Your task to perform on an android device: Search for "razer naga" on bestbuy, select the first entry, add it to the cart, then select checkout. Image 0: 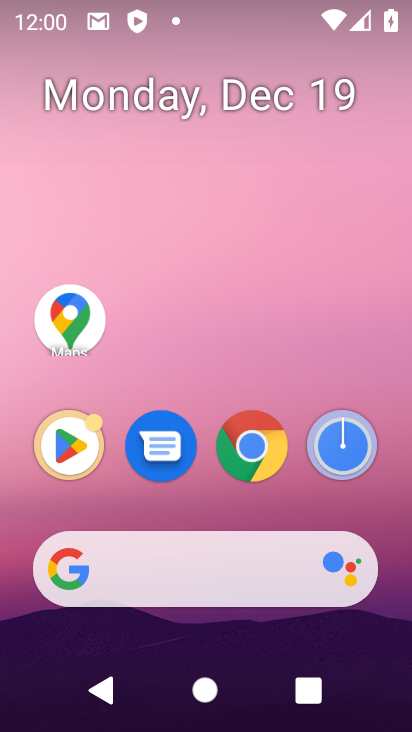
Step 0: click (244, 455)
Your task to perform on an android device: Search for "razer naga" on bestbuy, select the first entry, add it to the cart, then select checkout. Image 1: 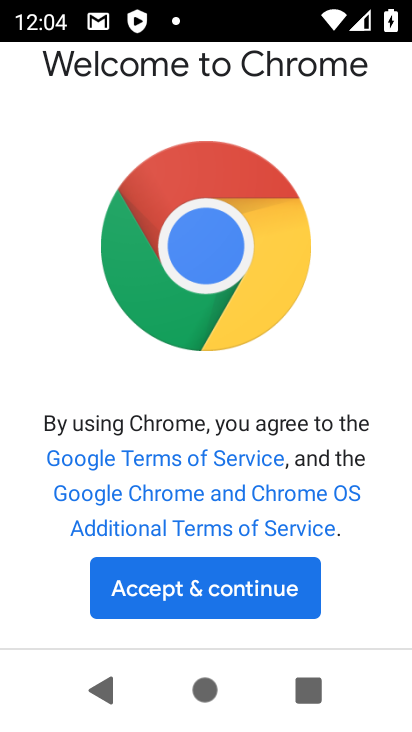
Step 1: click (233, 560)
Your task to perform on an android device: Search for "razer naga" on bestbuy, select the first entry, add it to the cart, then select checkout. Image 2: 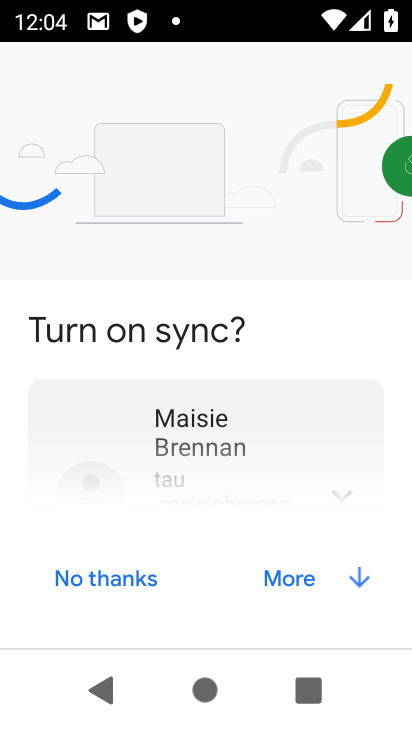
Step 2: click (77, 589)
Your task to perform on an android device: Search for "razer naga" on bestbuy, select the first entry, add it to the cart, then select checkout. Image 3: 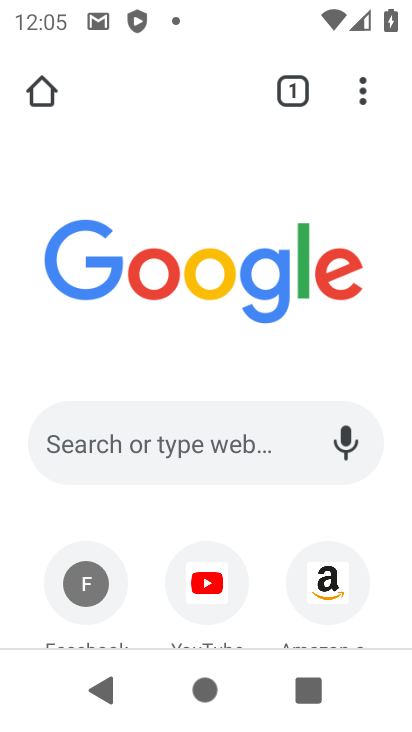
Step 3: press home button
Your task to perform on an android device: Search for "razer naga" on bestbuy, select the first entry, add it to the cart, then select checkout. Image 4: 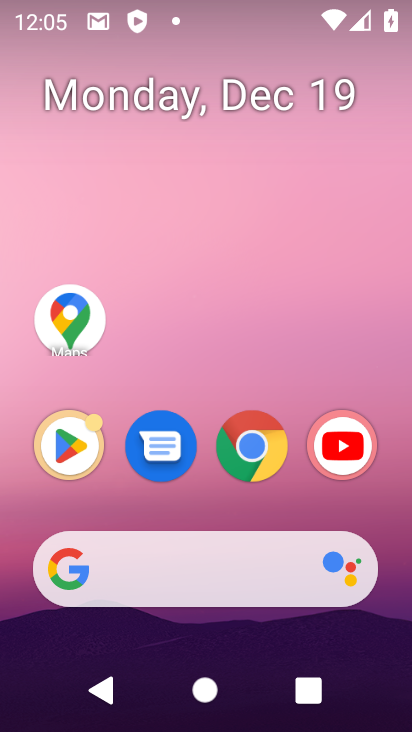
Step 4: click (264, 545)
Your task to perform on an android device: Search for "razer naga" on bestbuy, select the first entry, add it to the cart, then select checkout. Image 5: 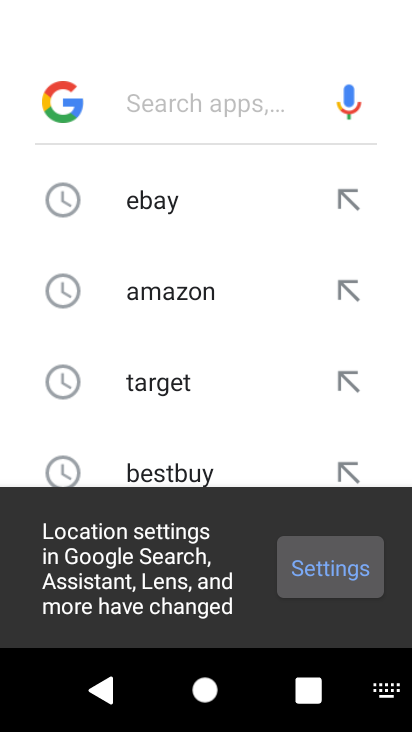
Step 5: type "bestbuy"
Your task to perform on an android device: Search for "razer naga" on bestbuy, select the first entry, add it to the cart, then select checkout. Image 6: 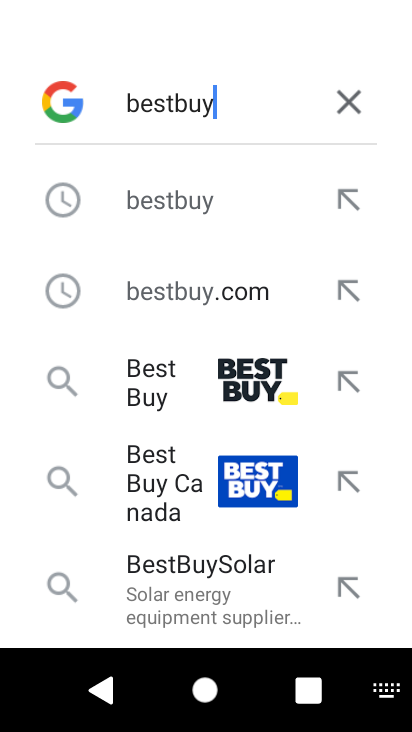
Step 6: click (144, 210)
Your task to perform on an android device: Search for "razer naga" on bestbuy, select the first entry, add it to the cart, then select checkout. Image 7: 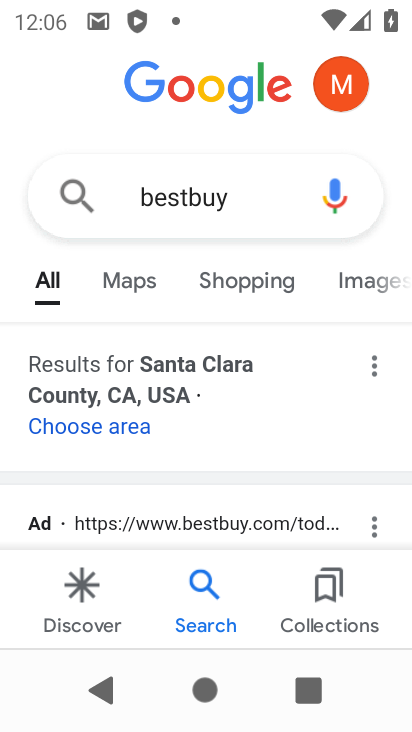
Step 7: click (159, 527)
Your task to perform on an android device: Search for "razer naga" on bestbuy, select the first entry, add it to the cart, then select checkout. Image 8: 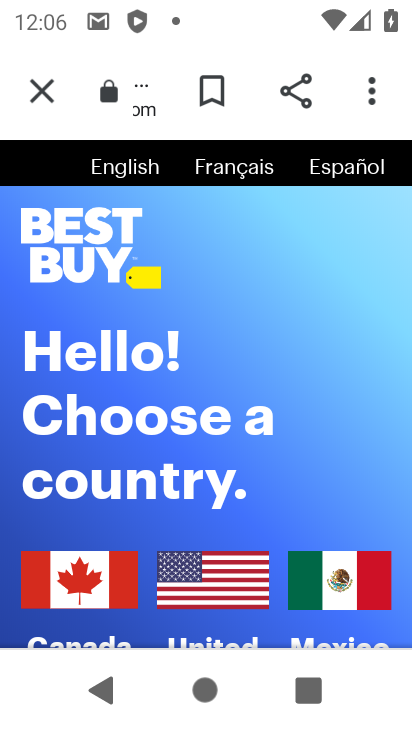
Step 8: click (77, 581)
Your task to perform on an android device: Search for "razer naga" on bestbuy, select the first entry, add it to the cart, then select checkout. Image 9: 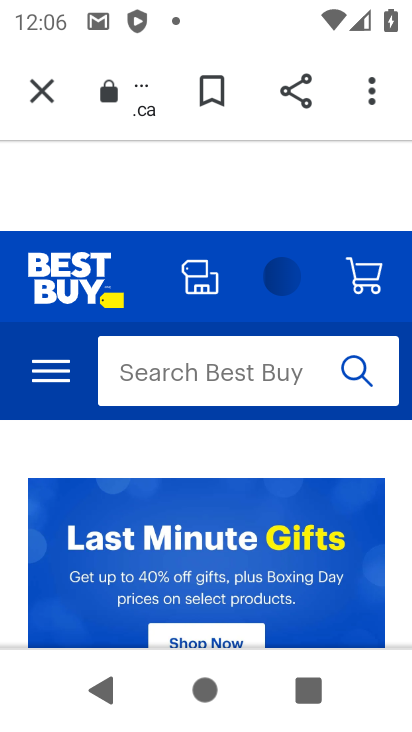
Step 9: click (227, 376)
Your task to perform on an android device: Search for "razer naga" on bestbuy, select the first entry, add it to the cart, then select checkout. Image 10: 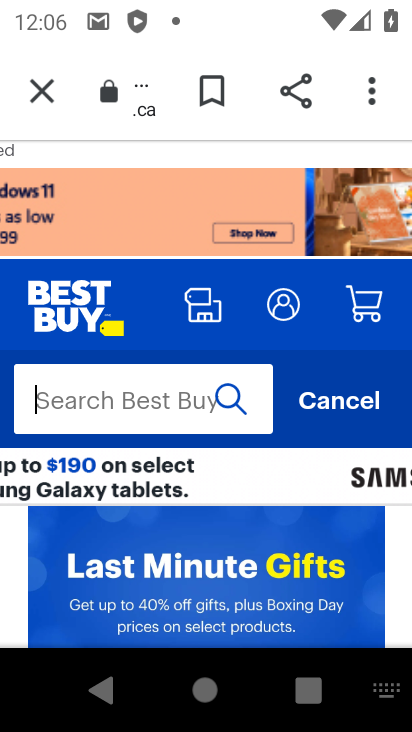
Step 10: type "razer naga"
Your task to perform on an android device: Search for "razer naga" on bestbuy, select the first entry, add it to the cart, then select checkout. Image 11: 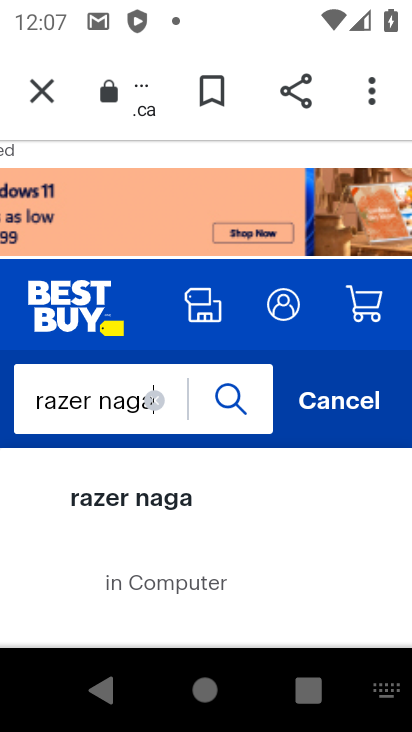
Step 11: click (189, 495)
Your task to perform on an android device: Search for "razer naga" on bestbuy, select the first entry, add it to the cart, then select checkout. Image 12: 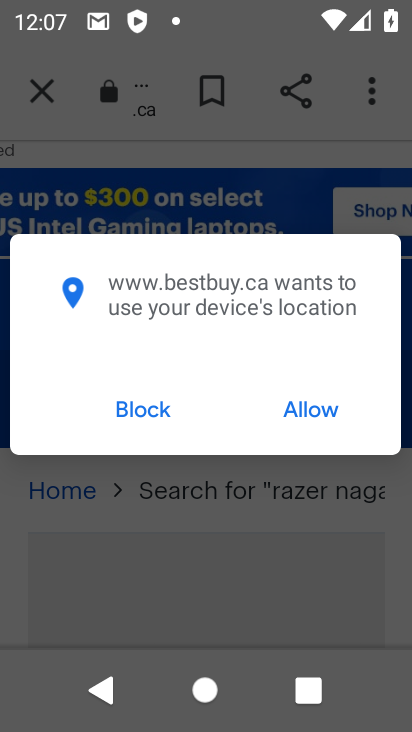
Step 12: click (314, 412)
Your task to perform on an android device: Search for "razer naga" on bestbuy, select the first entry, add it to the cart, then select checkout. Image 13: 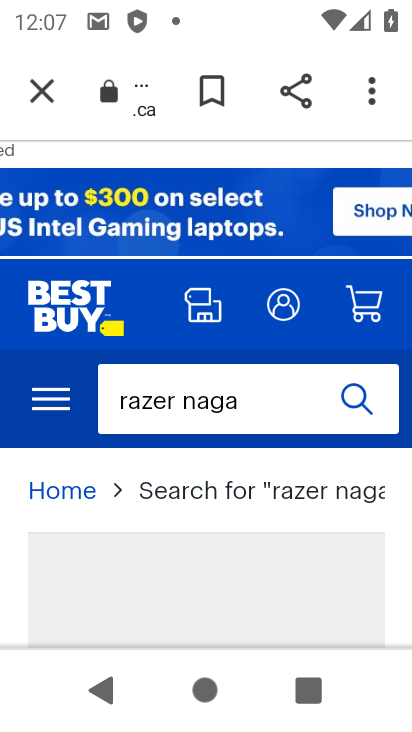
Step 13: task complete